Your task to perform on an android device: Open the calendar app, open the side menu, and click the "Day" option Image 0: 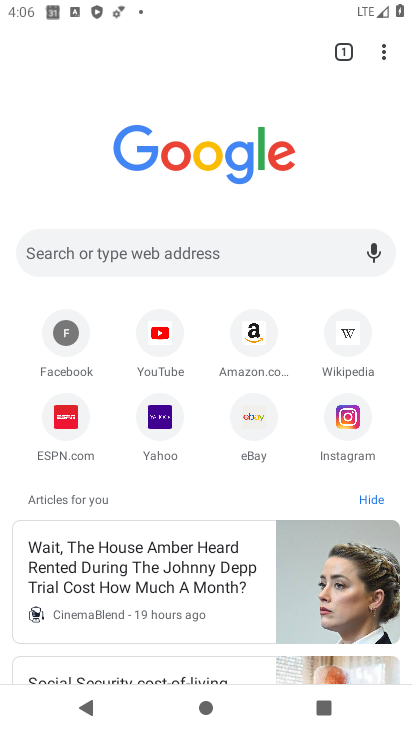
Step 0: press home button
Your task to perform on an android device: Open the calendar app, open the side menu, and click the "Day" option Image 1: 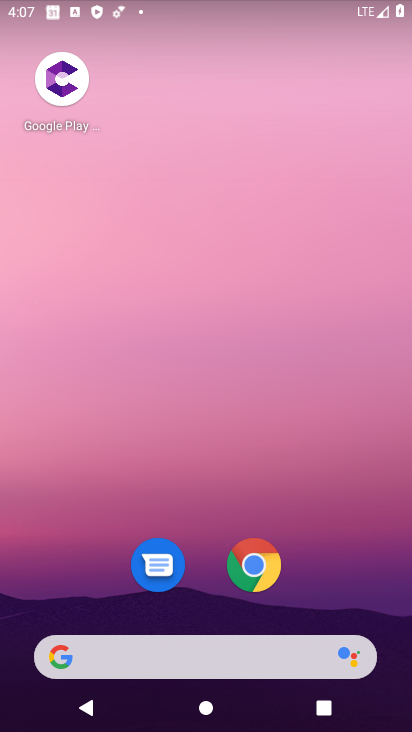
Step 1: drag from (160, 641) to (154, 134)
Your task to perform on an android device: Open the calendar app, open the side menu, and click the "Day" option Image 2: 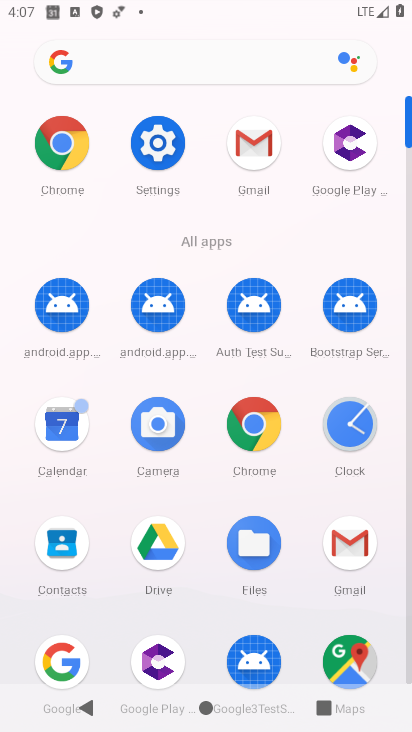
Step 2: click (73, 426)
Your task to perform on an android device: Open the calendar app, open the side menu, and click the "Day" option Image 3: 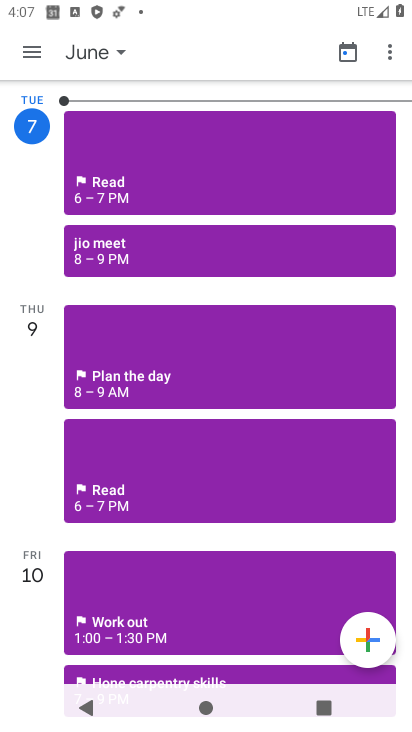
Step 3: click (25, 39)
Your task to perform on an android device: Open the calendar app, open the side menu, and click the "Day" option Image 4: 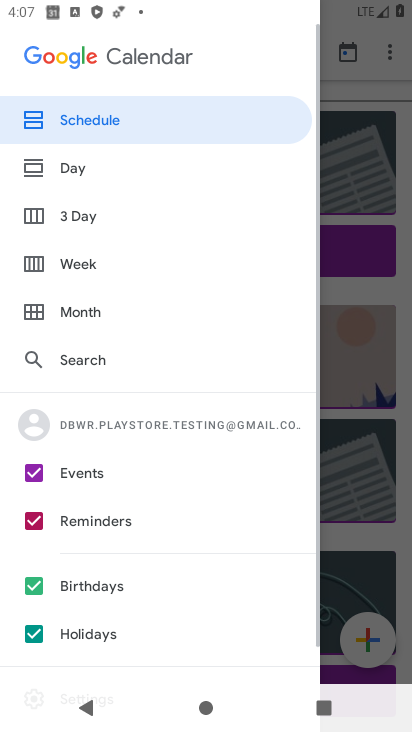
Step 4: click (87, 169)
Your task to perform on an android device: Open the calendar app, open the side menu, and click the "Day" option Image 5: 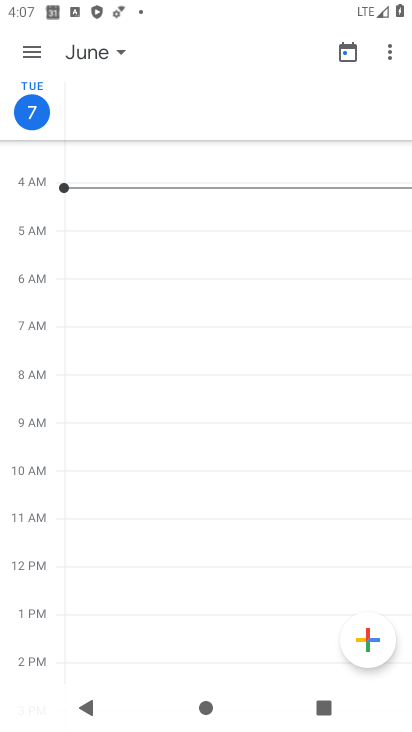
Step 5: task complete